Your task to perform on an android device: turn smart compose on in the gmail app Image 0: 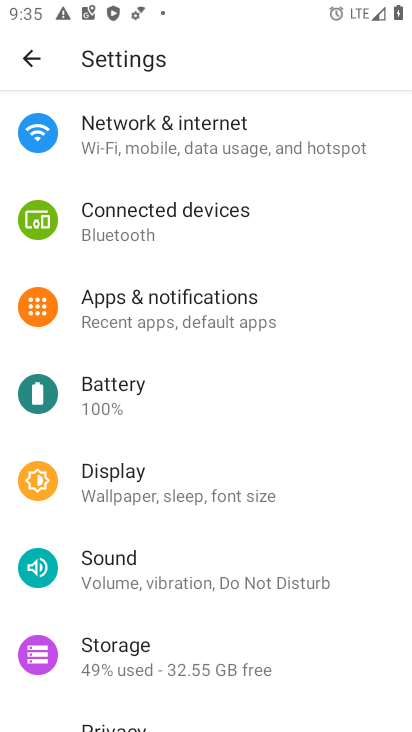
Step 0: press back button
Your task to perform on an android device: turn smart compose on in the gmail app Image 1: 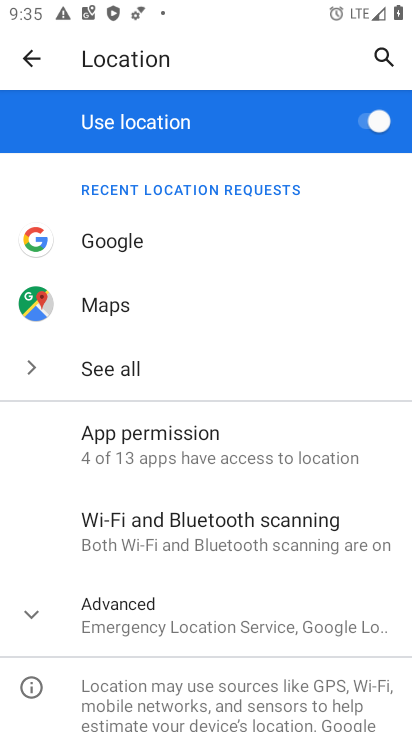
Step 1: press back button
Your task to perform on an android device: turn smart compose on in the gmail app Image 2: 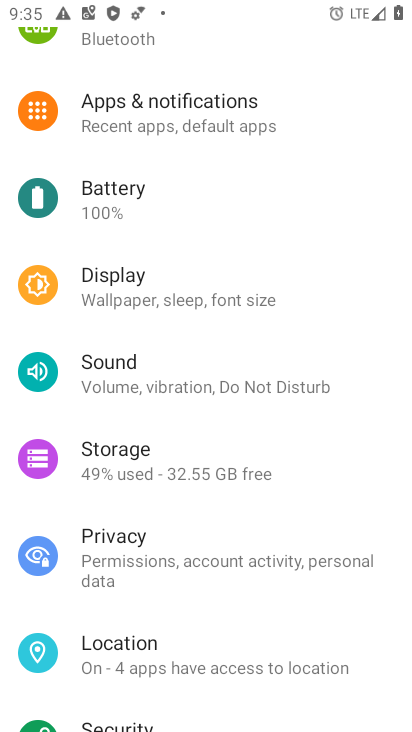
Step 2: press back button
Your task to perform on an android device: turn smart compose on in the gmail app Image 3: 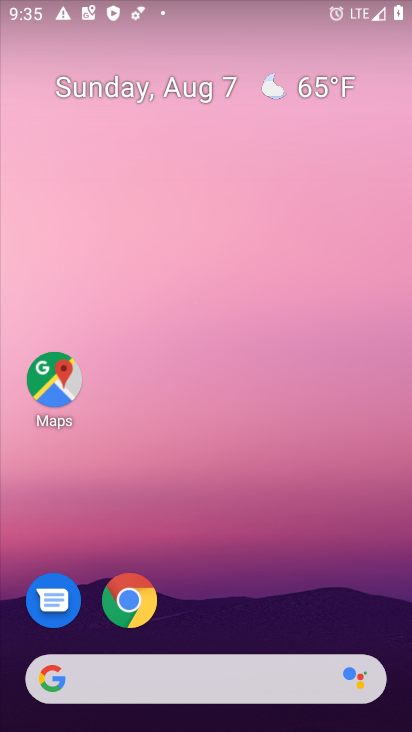
Step 3: drag from (185, 582) to (162, 114)
Your task to perform on an android device: turn smart compose on in the gmail app Image 4: 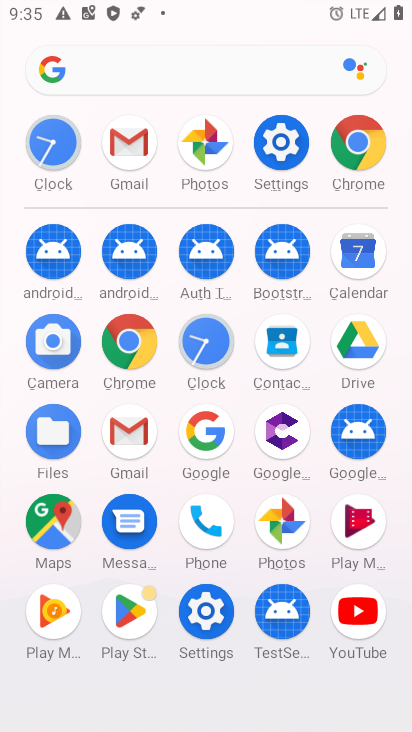
Step 4: click (126, 139)
Your task to perform on an android device: turn smart compose on in the gmail app Image 5: 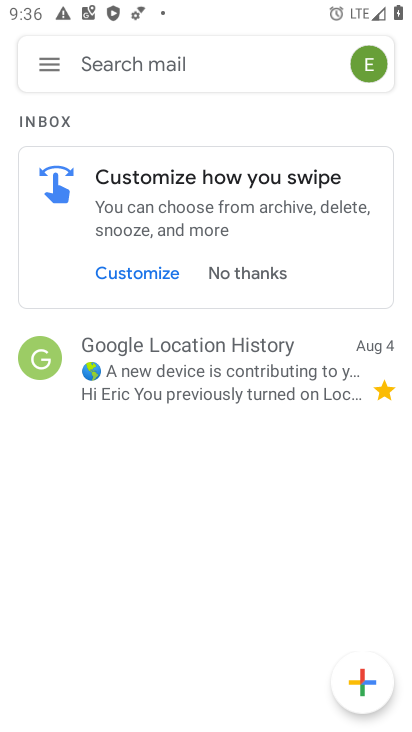
Step 5: click (43, 64)
Your task to perform on an android device: turn smart compose on in the gmail app Image 6: 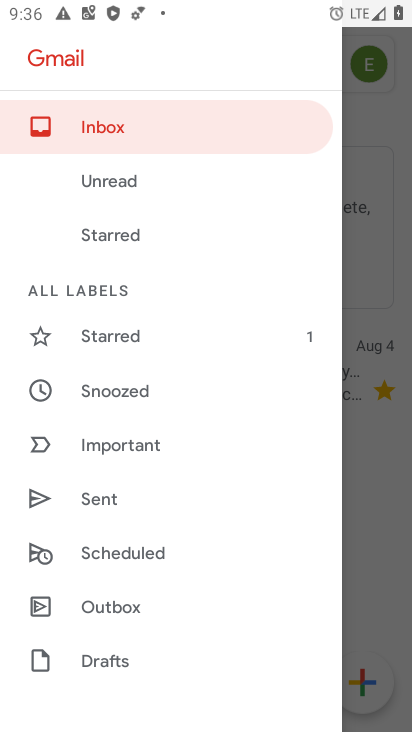
Step 6: click (168, 224)
Your task to perform on an android device: turn smart compose on in the gmail app Image 7: 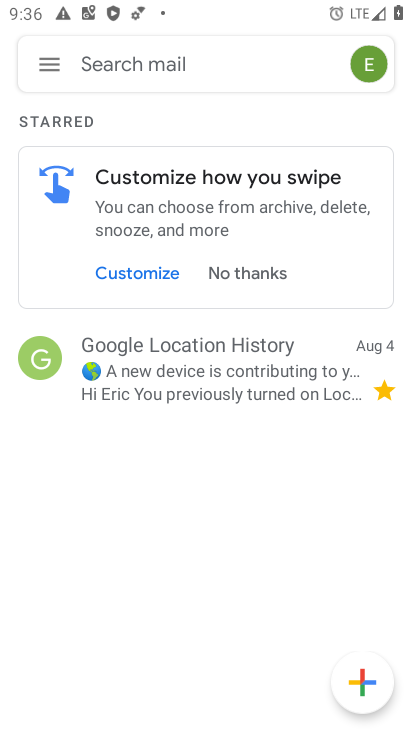
Step 7: click (49, 61)
Your task to perform on an android device: turn smart compose on in the gmail app Image 8: 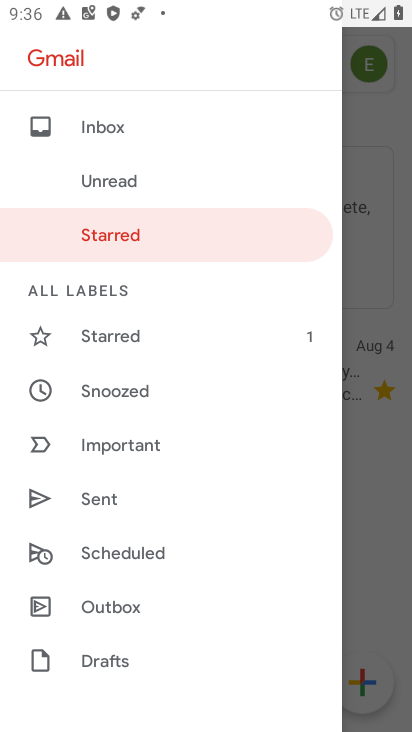
Step 8: drag from (129, 608) to (149, 288)
Your task to perform on an android device: turn smart compose on in the gmail app Image 9: 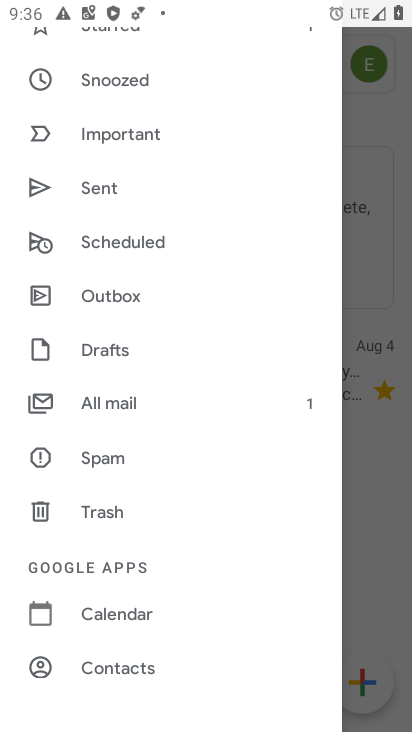
Step 9: drag from (125, 601) to (125, 206)
Your task to perform on an android device: turn smart compose on in the gmail app Image 10: 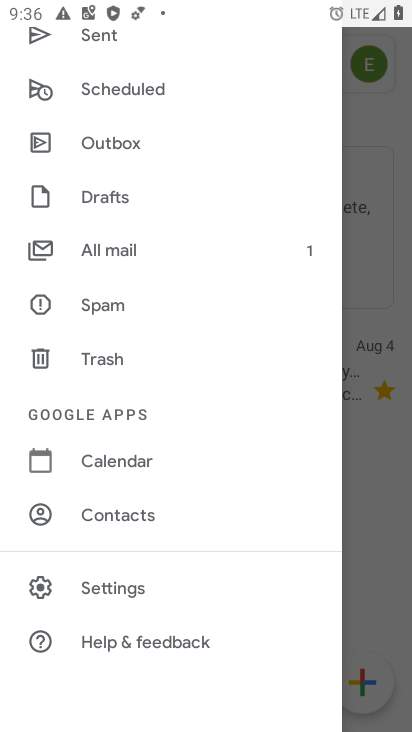
Step 10: click (99, 581)
Your task to perform on an android device: turn smart compose on in the gmail app Image 11: 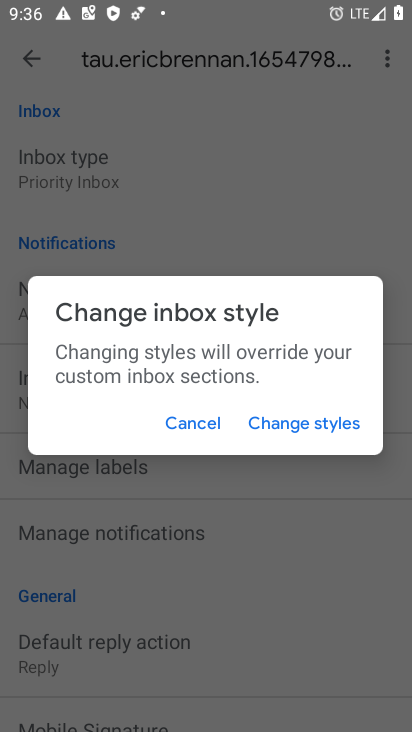
Step 11: click (179, 426)
Your task to perform on an android device: turn smart compose on in the gmail app Image 12: 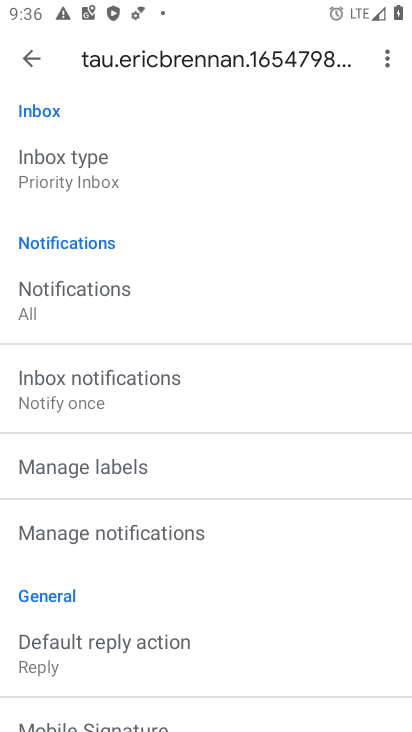
Step 12: task complete